Your task to perform on an android device: turn on bluetooth scan Image 0: 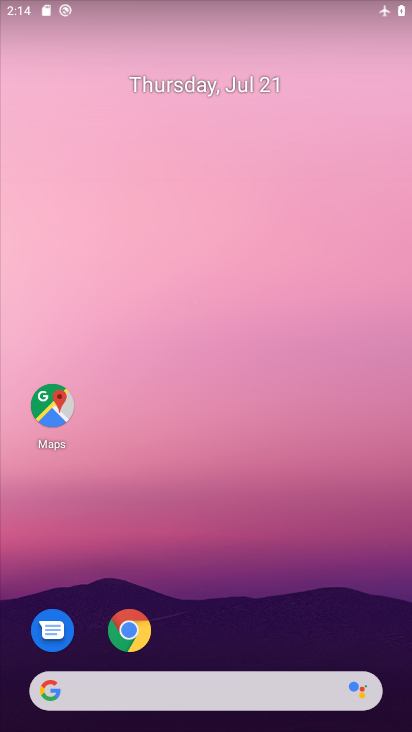
Step 0: drag from (217, 677) to (166, 221)
Your task to perform on an android device: turn on bluetooth scan Image 1: 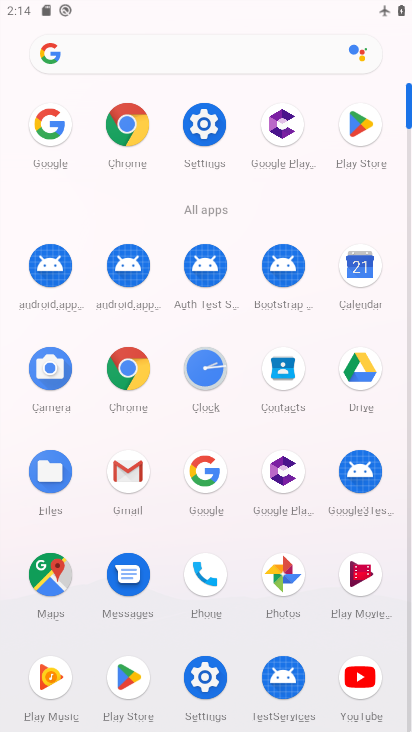
Step 1: click (197, 670)
Your task to perform on an android device: turn on bluetooth scan Image 2: 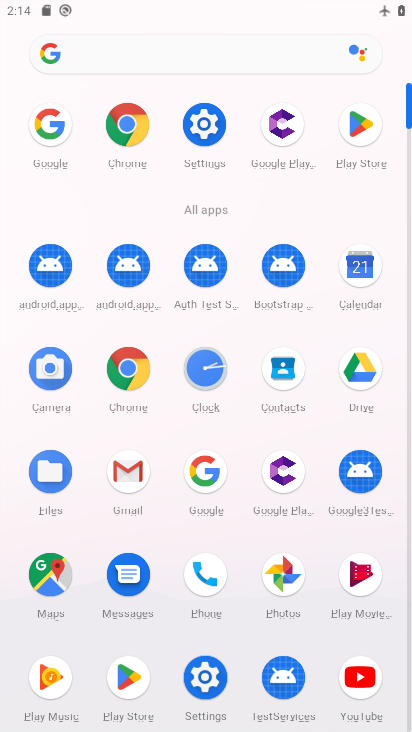
Step 2: click (199, 675)
Your task to perform on an android device: turn on bluetooth scan Image 3: 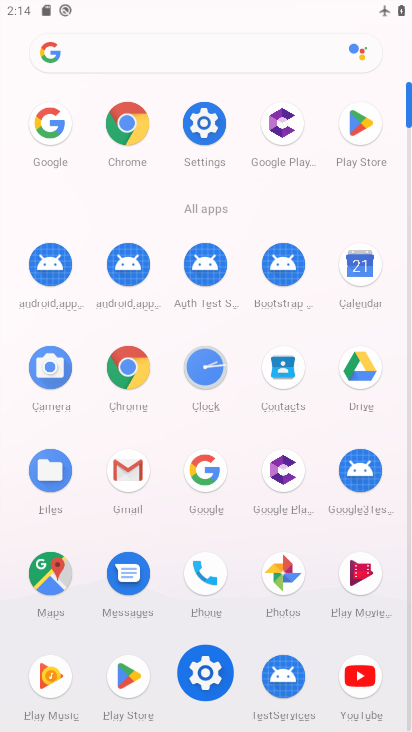
Step 3: click (201, 677)
Your task to perform on an android device: turn on bluetooth scan Image 4: 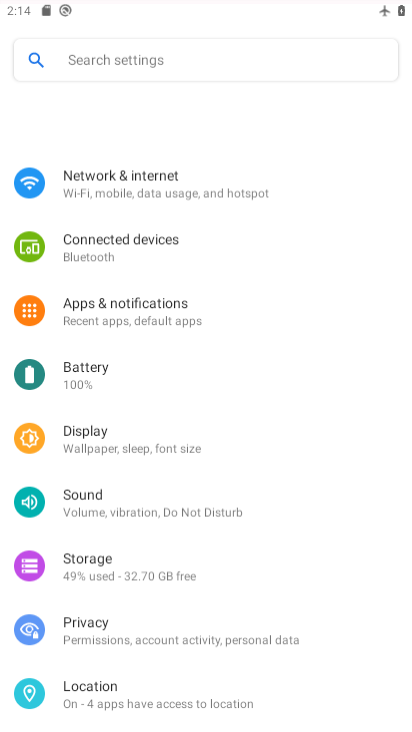
Step 4: click (201, 670)
Your task to perform on an android device: turn on bluetooth scan Image 5: 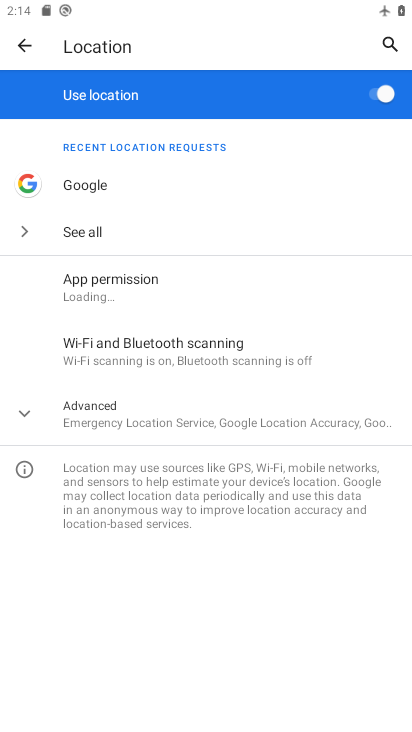
Step 5: click (20, 34)
Your task to perform on an android device: turn on bluetooth scan Image 6: 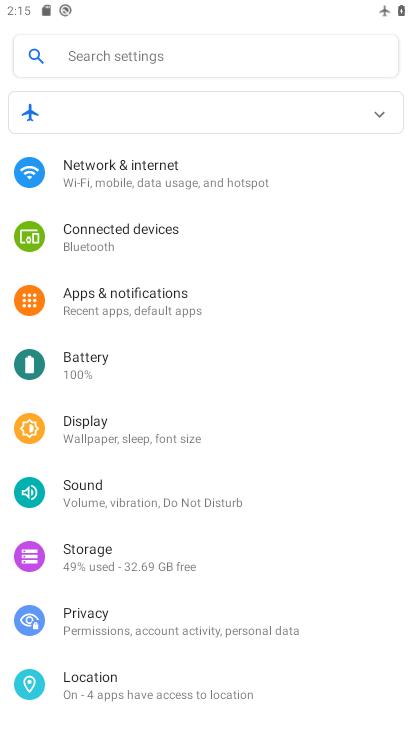
Step 6: click (95, 680)
Your task to perform on an android device: turn on bluetooth scan Image 7: 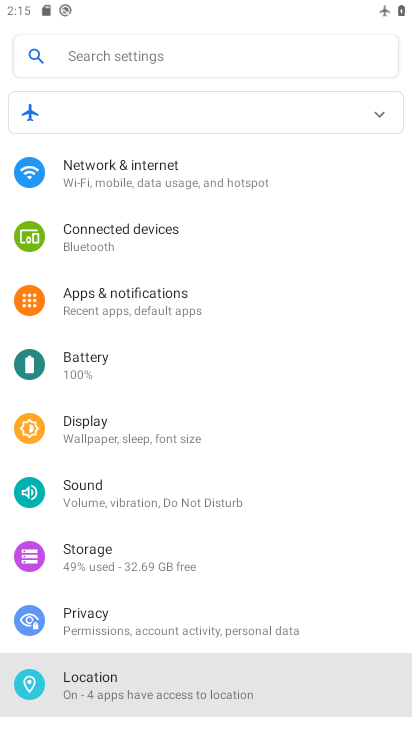
Step 7: click (95, 680)
Your task to perform on an android device: turn on bluetooth scan Image 8: 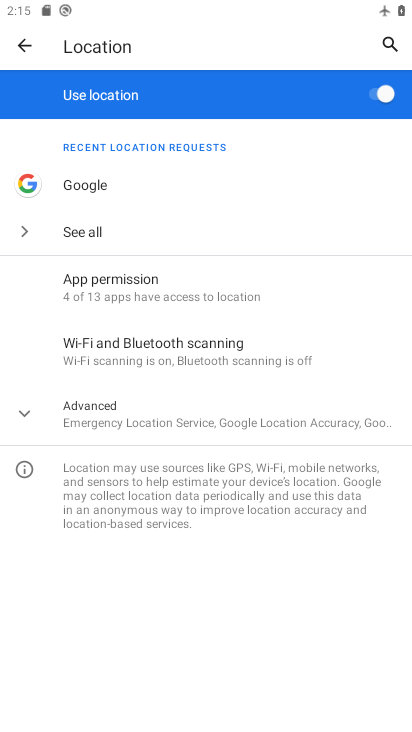
Step 8: click (102, 343)
Your task to perform on an android device: turn on bluetooth scan Image 9: 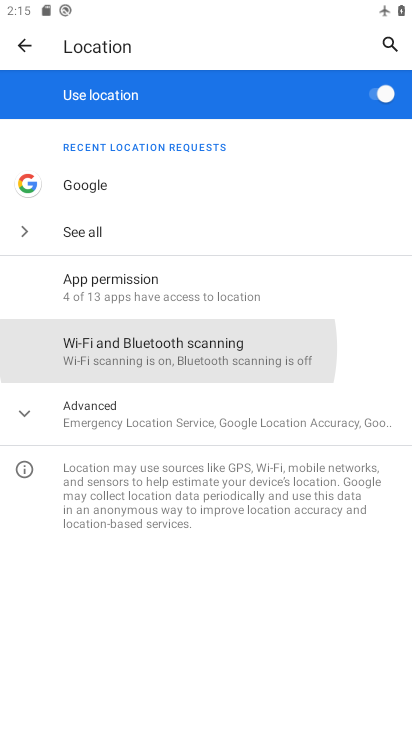
Step 9: click (102, 343)
Your task to perform on an android device: turn on bluetooth scan Image 10: 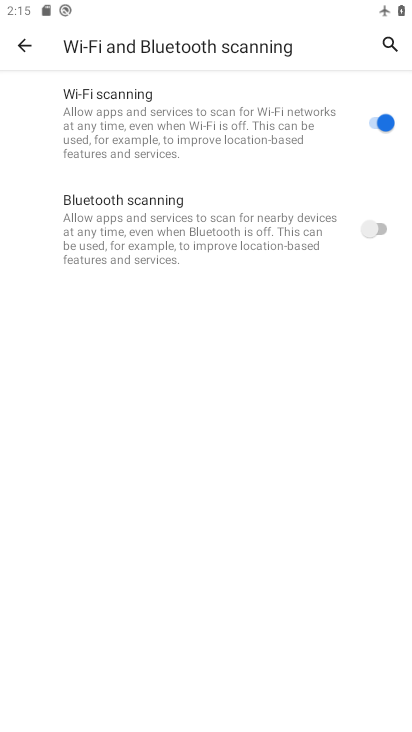
Step 10: click (372, 225)
Your task to perform on an android device: turn on bluetooth scan Image 11: 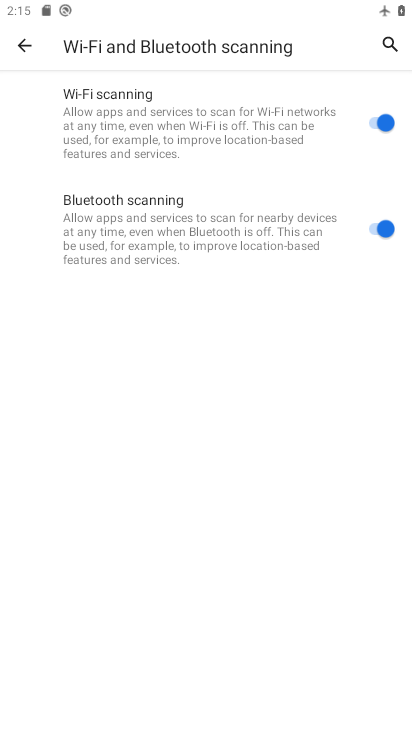
Step 11: task complete